Your task to perform on an android device: Search for custom made wallets on etsy.com Image 0: 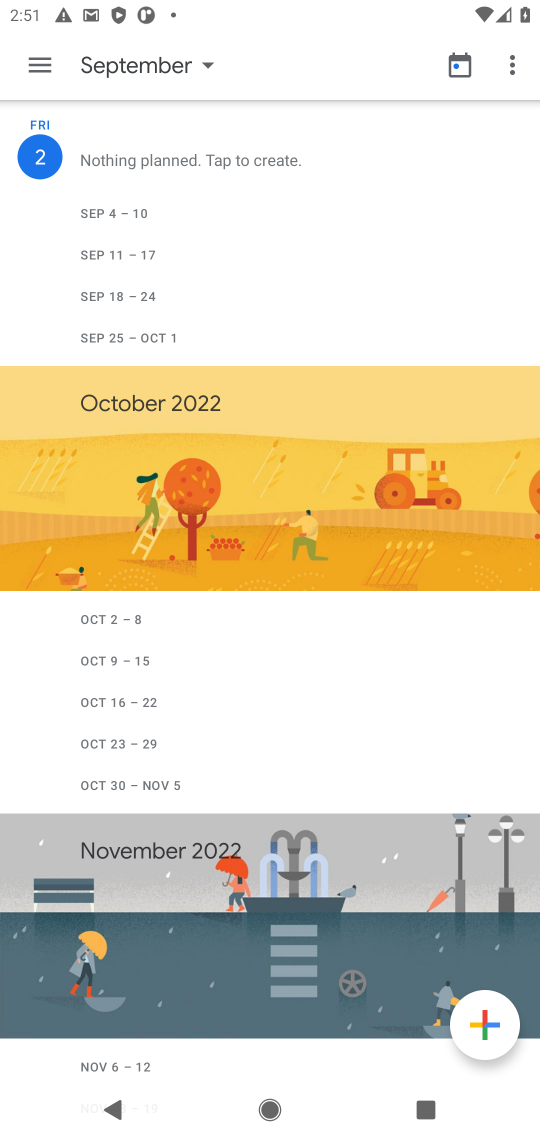
Step 0: press home button
Your task to perform on an android device: Search for custom made wallets on etsy.com Image 1: 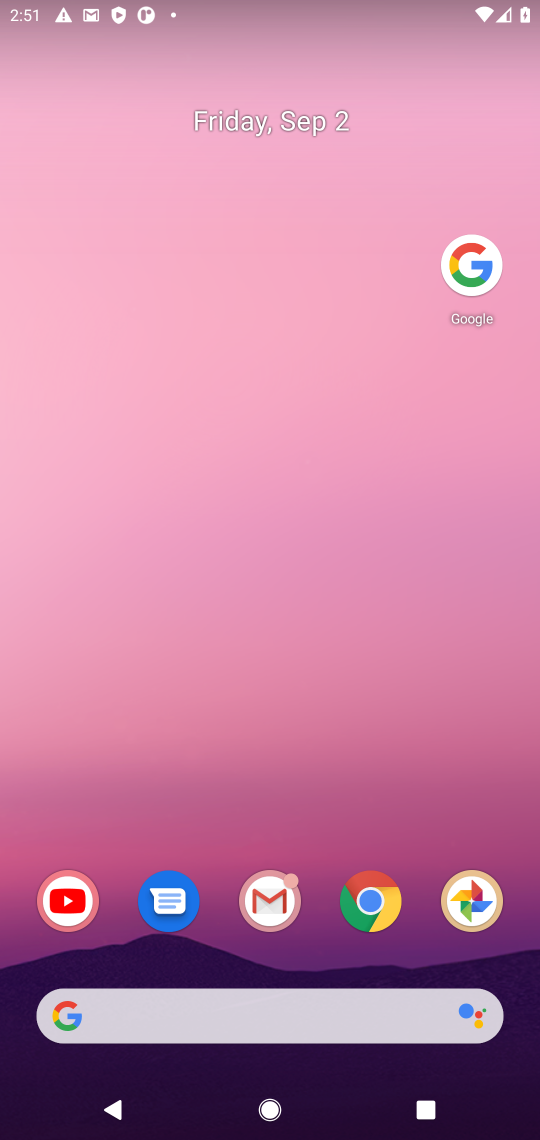
Step 1: click (203, 276)
Your task to perform on an android device: Search for custom made wallets on etsy.com Image 2: 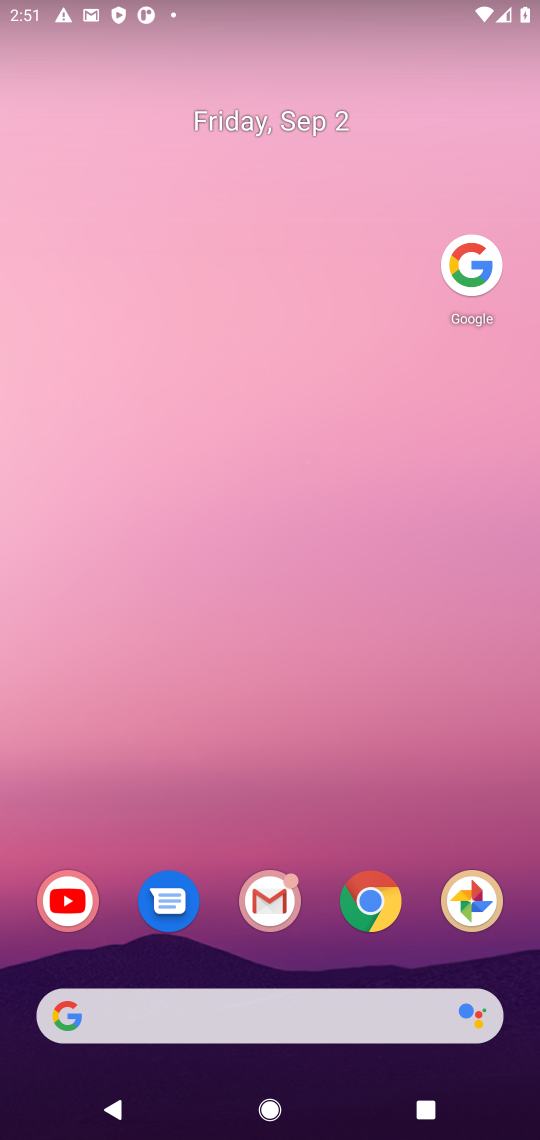
Step 2: click (482, 247)
Your task to perform on an android device: Search for custom made wallets on etsy.com Image 3: 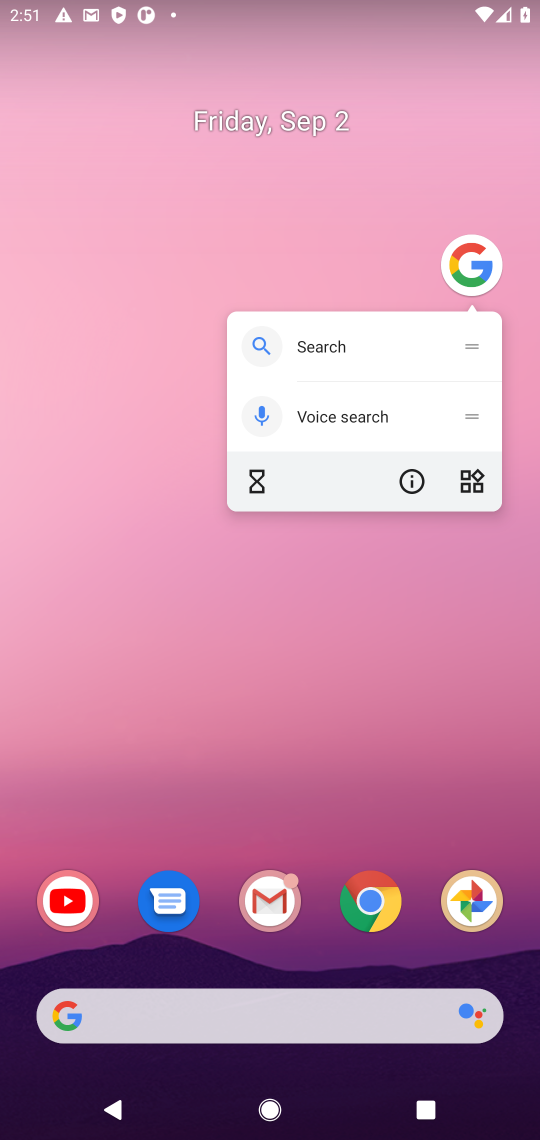
Step 3: click (461, 271)
Your task to perform on an android device: Search for custom made wallets on etsy.com Image 4: 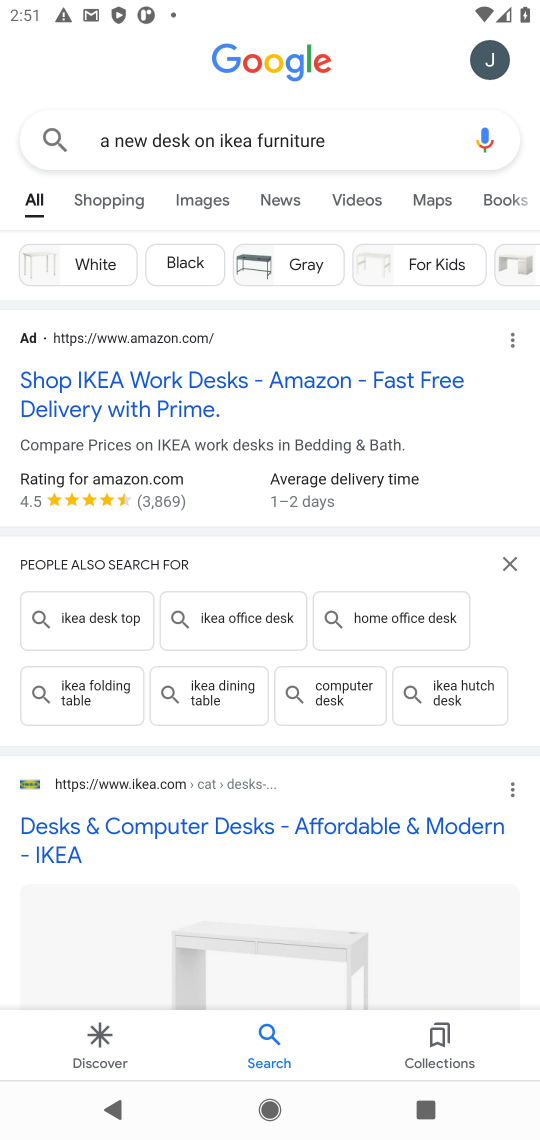
Step 4: click (360, 124)
Your task to perform on an android device: Search for custom made wallets on etsy.com Image 5: 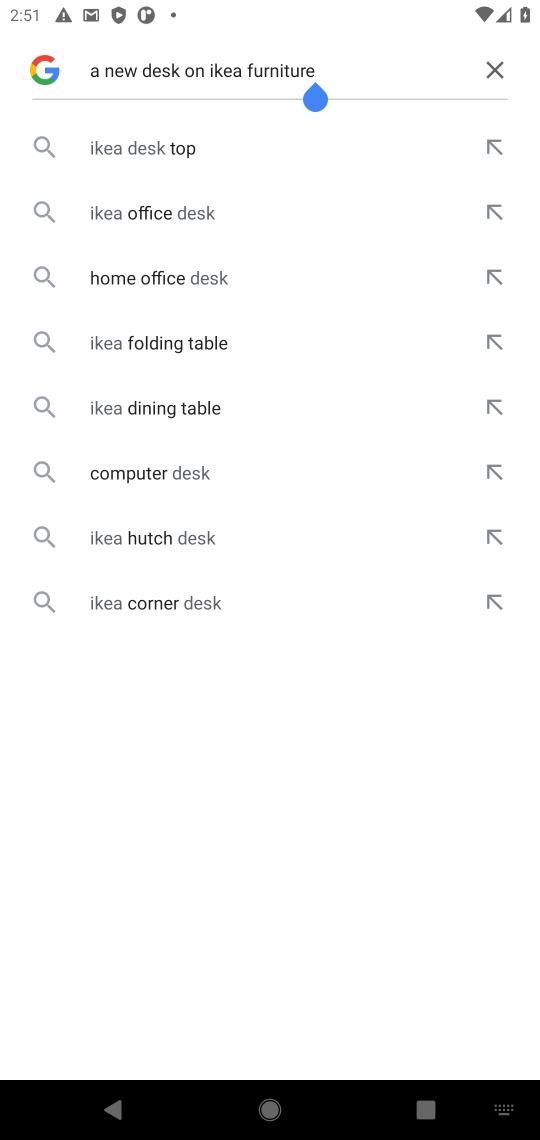
Step 5: click (492, 61)
Your task to perform on an android device: Search for custom made wallets on etsy.com Image 6: 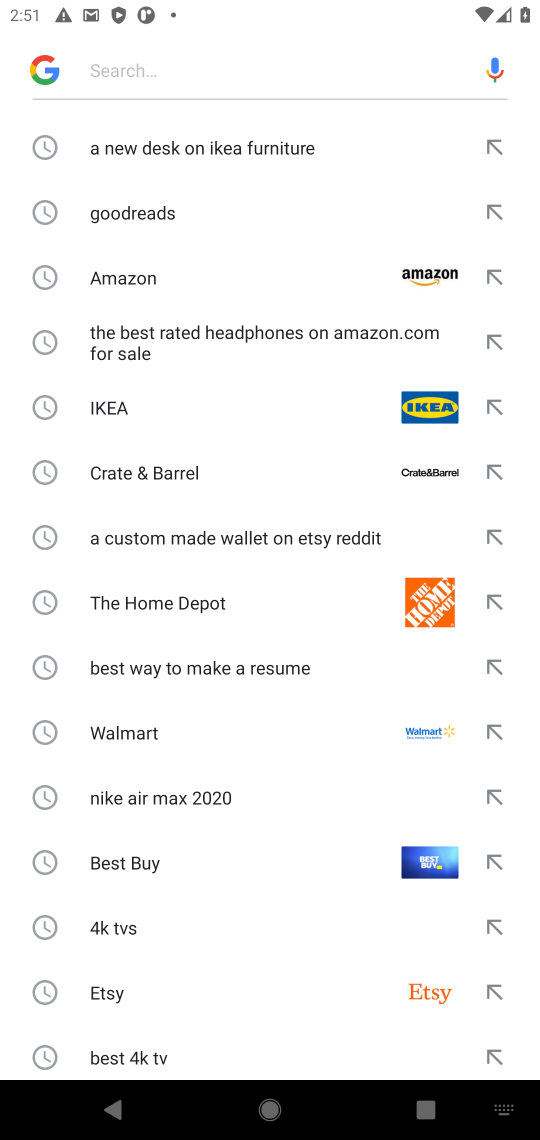
Step 6: click (171, 70)
Your task to perform on an android device: Search for custom made wallets on etsy.com Image 7: 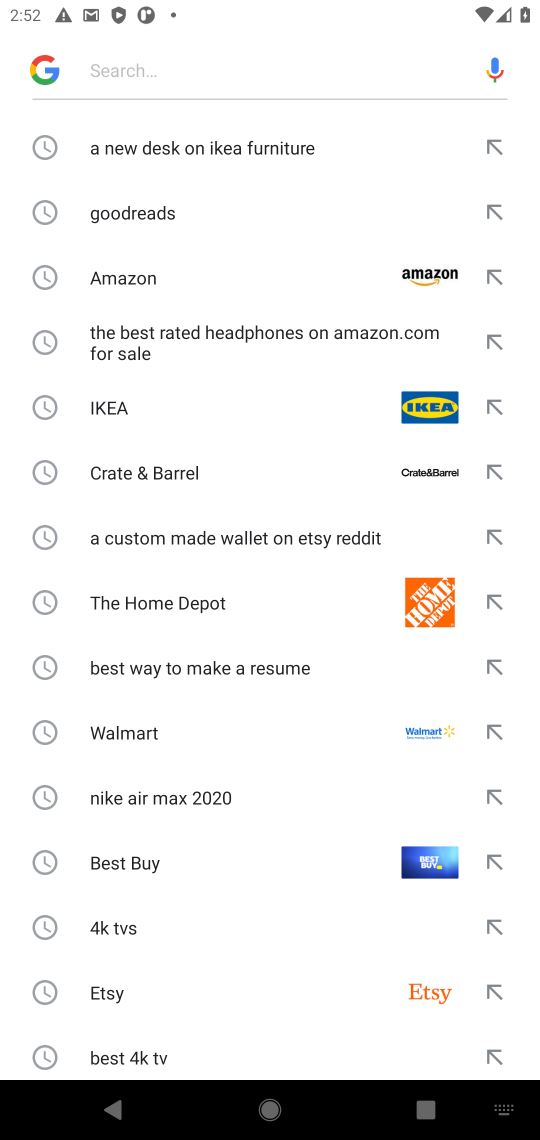
Step 7: type "custom made wallets on etsy.com "
Your task to perform on an android device: Search for custom made wallets on etsy.com Image 8: 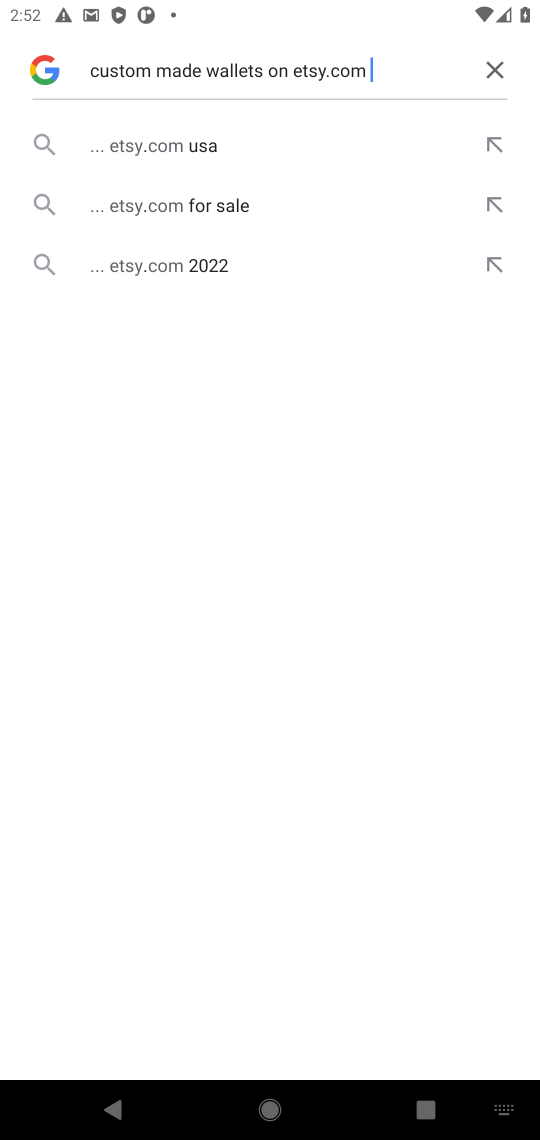
Step 8: click (156, 146)
Your task to perform on an android device: Search for custom made wallets on etsy.com Image 9: 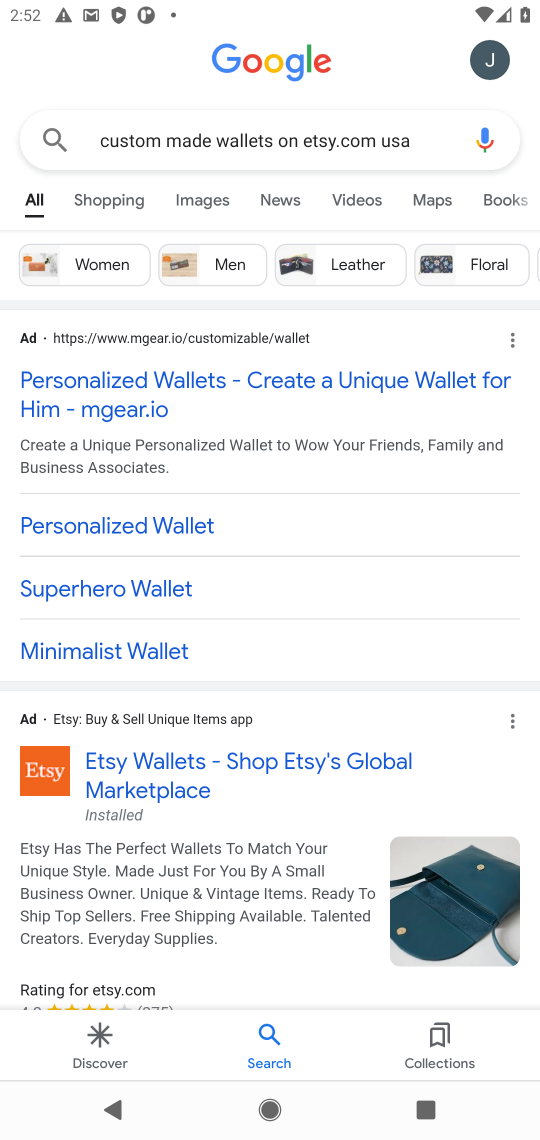
Step 9: click (173, 747)
Your task to perform on an android device: Search for custom made wallets on etsy.com Image 10: 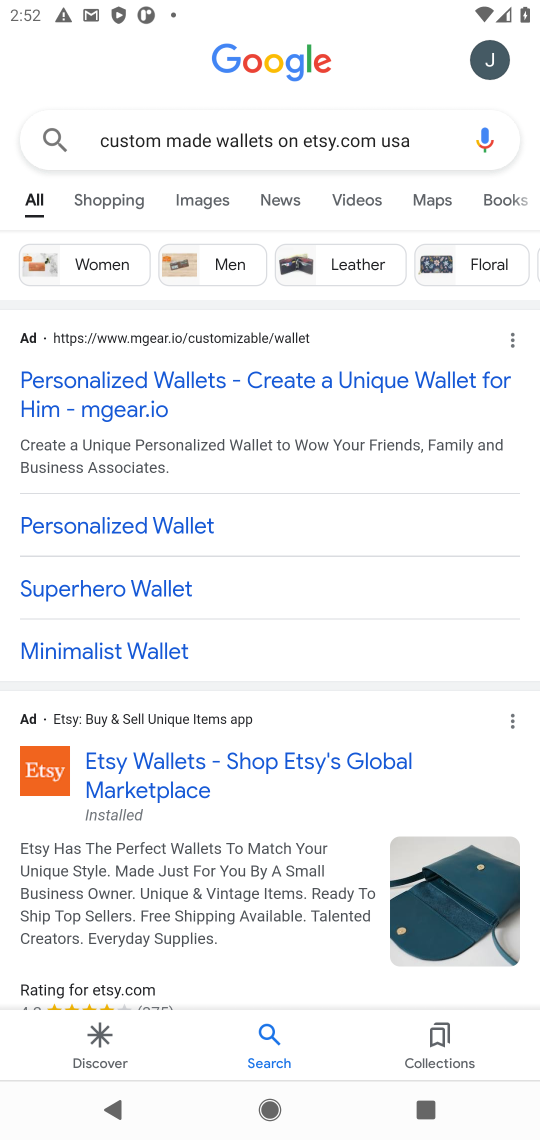
Step 10: click (105, 761)
Your task to perform on an android device: Search for custom made wallets on etsy.com Image 11: 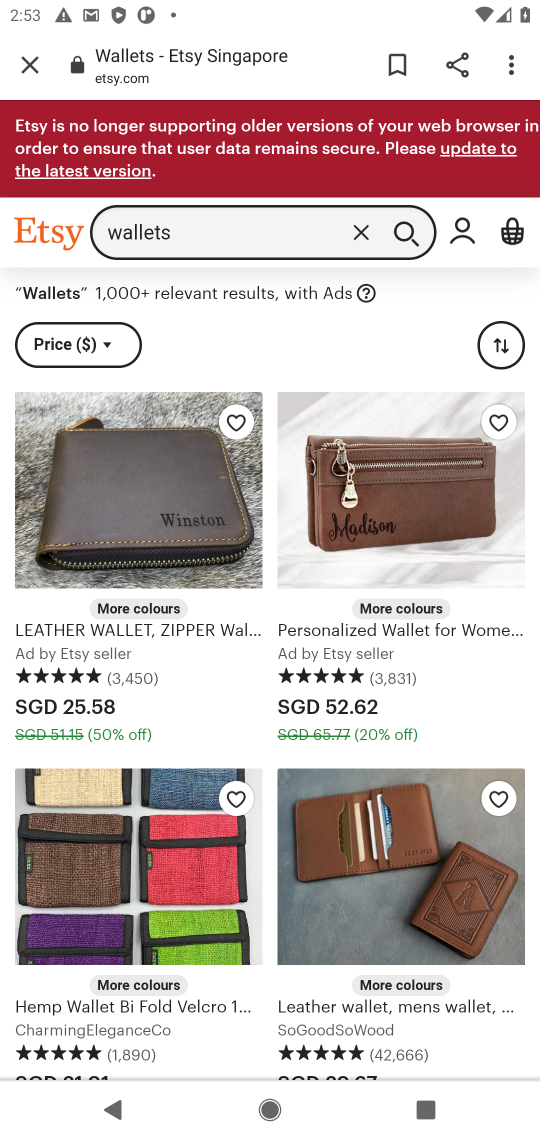
Step 11: task complete